Your task to perform on an android device: What's the weather going to be this weekend? Image 0: 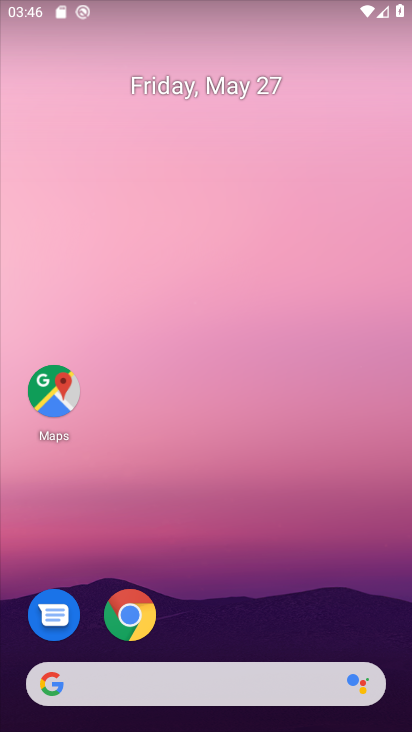
Step 0: click (194, 695)
Your task to perform on an android device: What's the weather going to be this weekend? Image 1: 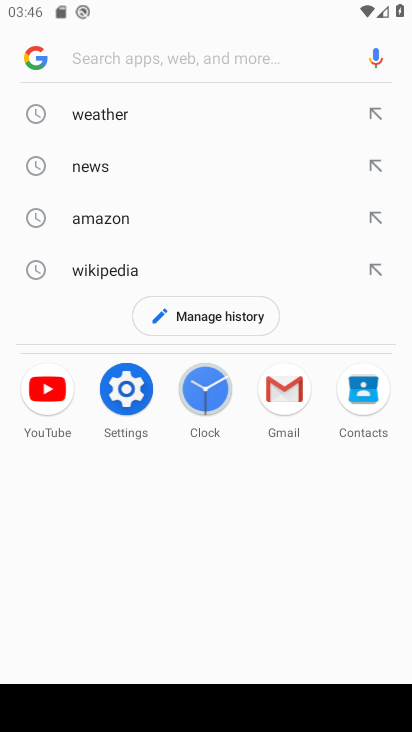
Step 1: type "weather this weekend"
Your task to perform on an android device: What's the weather going to be this weekend? Image 2: 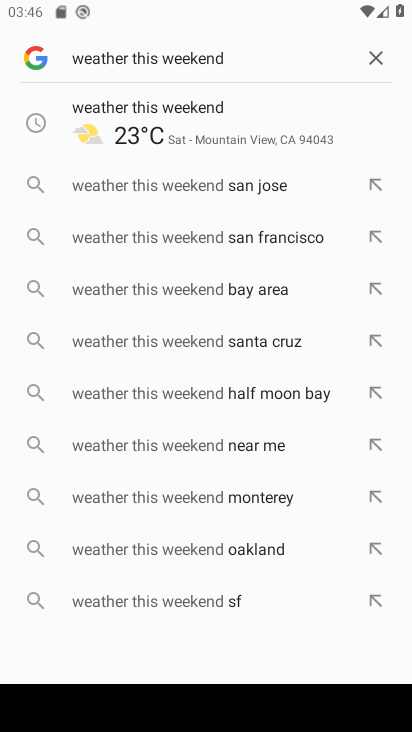
Step 2: click (192, 122)
Your task to perform on an android device: What's the weather going to be this weekend? Image 3: 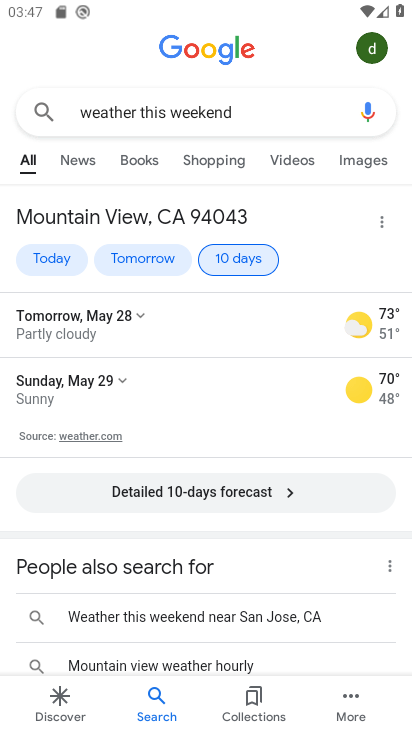
Step 3: task complete